Your task to perform on an android device: open wifi settings Image 0: 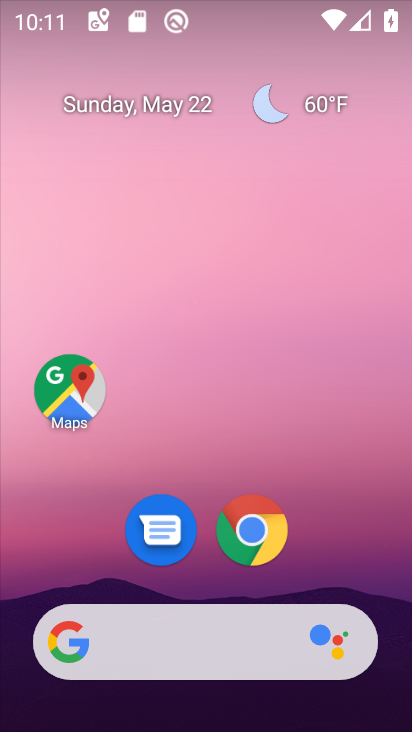
Step 0: drag from (400, 649) to (386, 304)
Your task to perform on an android device: open wifi settings Image 1: 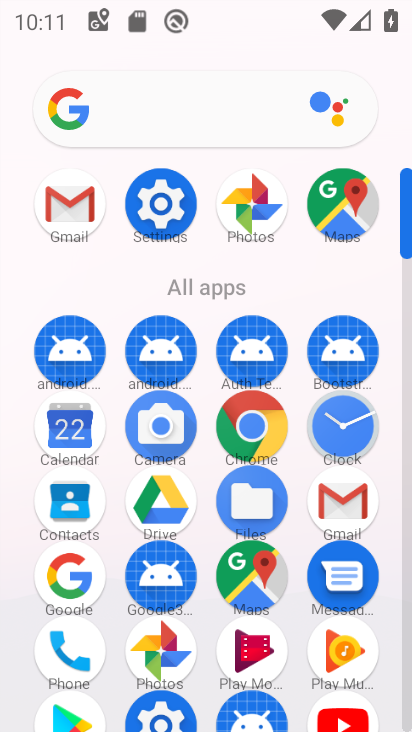
Step 1: click (143, 201)
Your task to perform on an android device: open wifi settings Image 2: 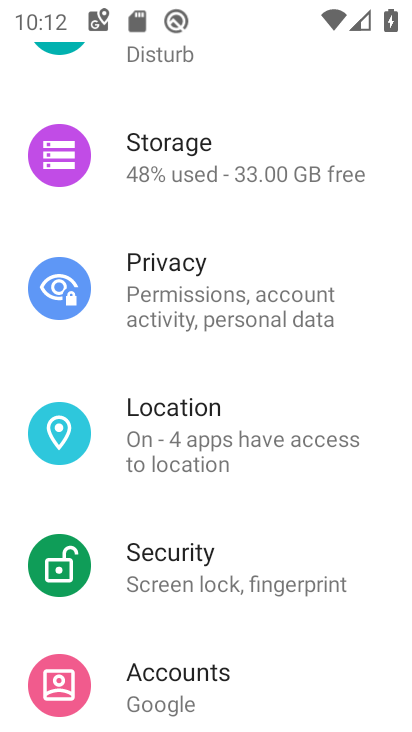
Step 2: drag from (354, 91) to (369, 504)
Your task to perform on an android device: open wifi settings Image 3: 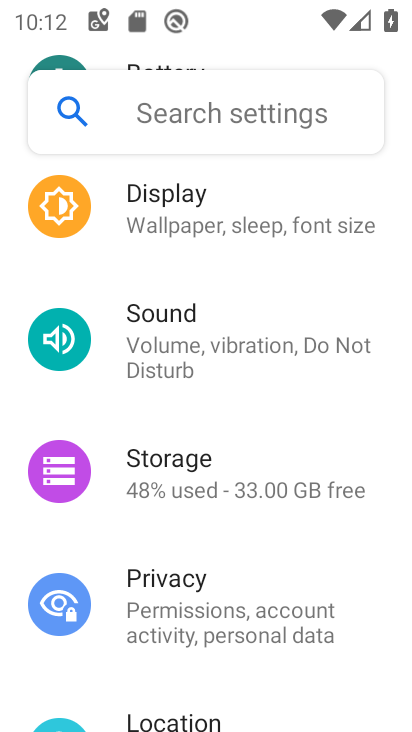
Step 3: drag from (379, 187) to (378, 710)
Your task to perform on an android device: open wifi settings Image 4: 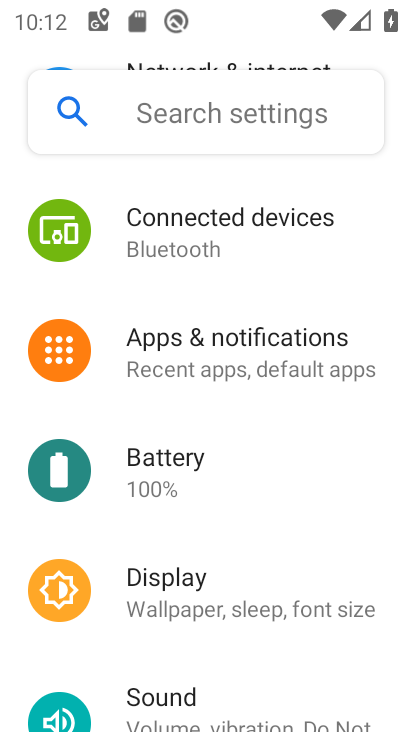
Step 4: drag from (385, 204) to (392, 581)
Your task to perform on an android device: open wifi settings Image 5: 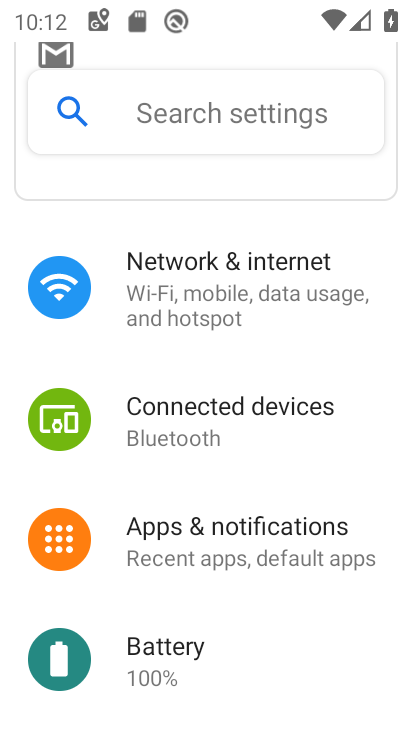
Step 5: click (201, 299)
Your task to perform on an android device: open wifi settings Image 6: 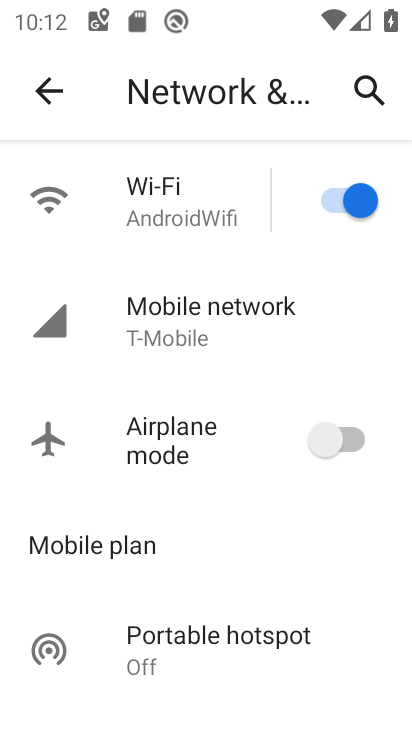
Step 6: click (165, 204)
Your task to perform on an android device: open wifi settings Image 7: 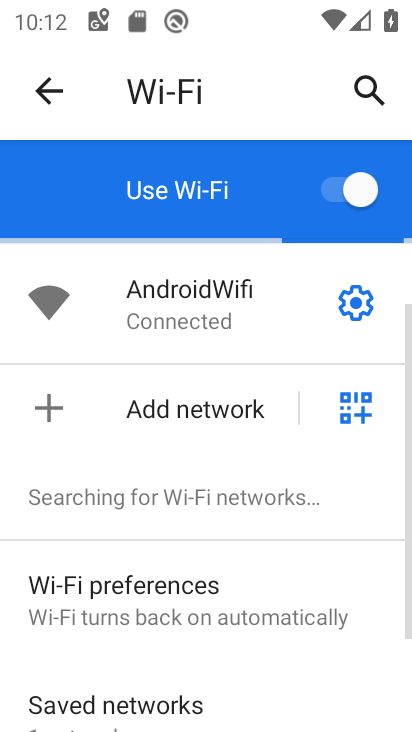
Step 7: click (350, 301)
Your task to perform on an android device: open wifi settings Image 8: 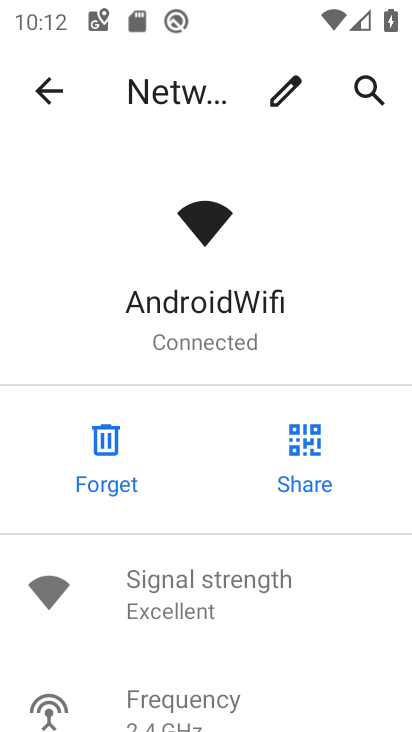
Step 8: task complete